Your task to perform on an android device: Open the calendar and show me this week's events Image 0: 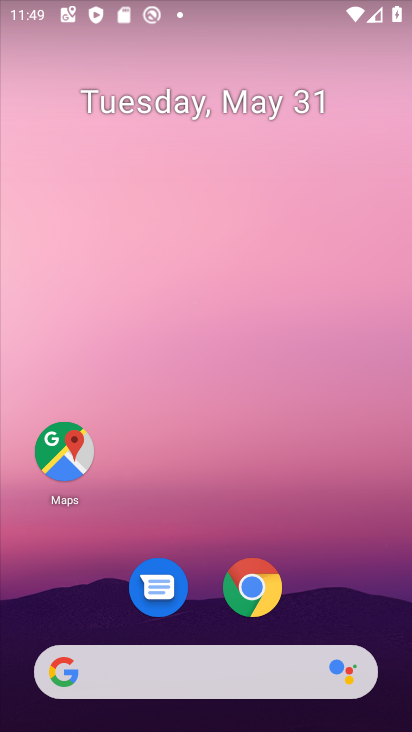
Step 0: drag from (334, 537) to (317, 265)
Your task to perform on an android device: Open the calendar and show me this week's events Image 1: 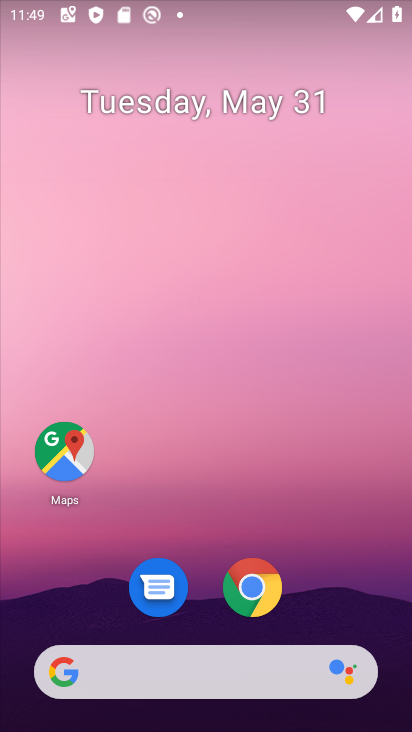
Step 1: drag from (369, 622) to (329, 200)
Your task to perform on an android device: Open the calendar and show me this week's events Image 2: 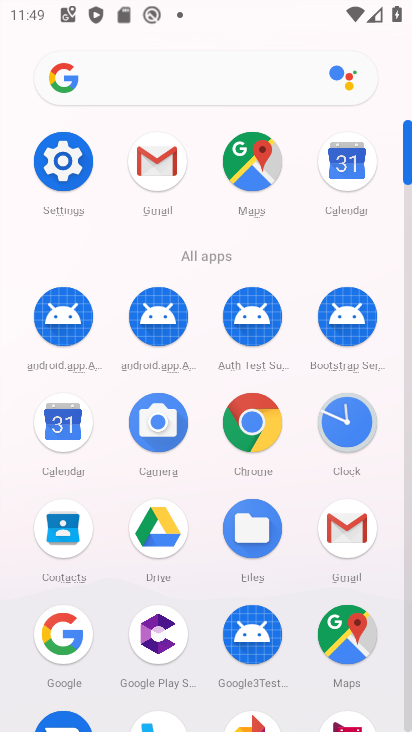
Step 2: click (364, 155)
Your task to perform on an android device: Open the calendar and show me this week's events Image 3: 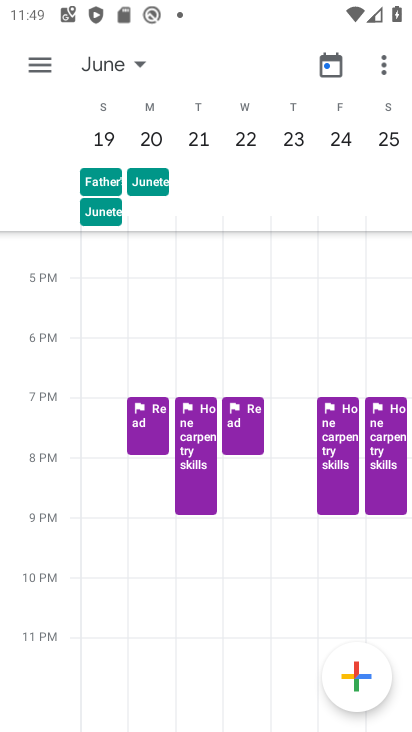
Step 3: click (101, 74)
Your task to perform on an android device: Open the calendar and show me this week's events Image 4: 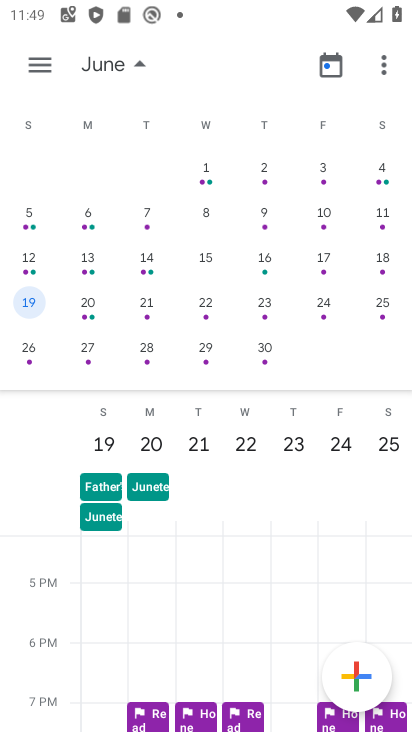
Step 4: click (199, 169)
Your task to perform on an android device: Open the calendar and show me this week's events Image 5: 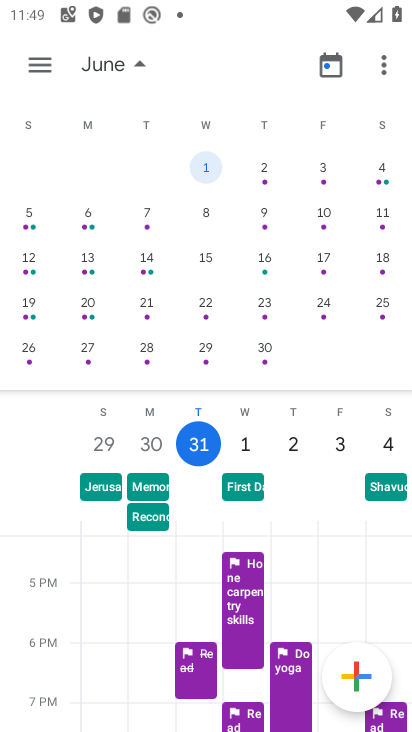
Step 5: task complete